Your task to perform on an android device: Go to Maps Image 0: 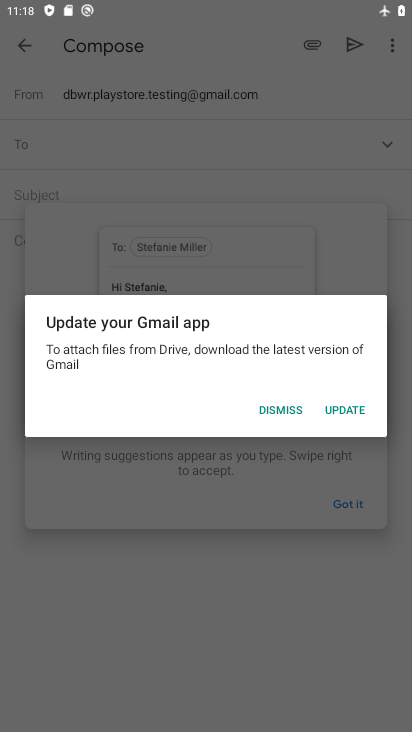
Step 0: press home button
Your task to perform on an android device: Go to Maps Image 1: 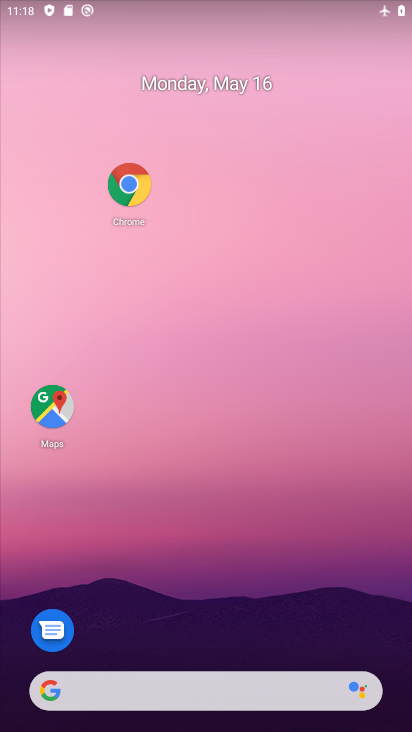
Step 1: click (48, 406)
Your task to perform on an android device: Go to Maps Image 2: 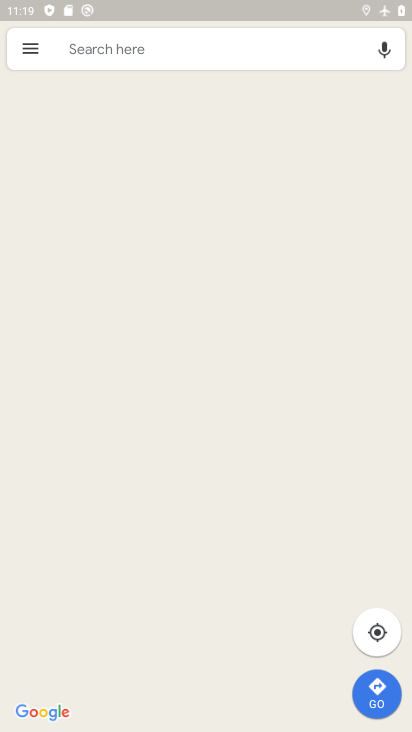
Step 2: click (383, 635)
Your task to perform on an android device: Go to Maps Image 3: 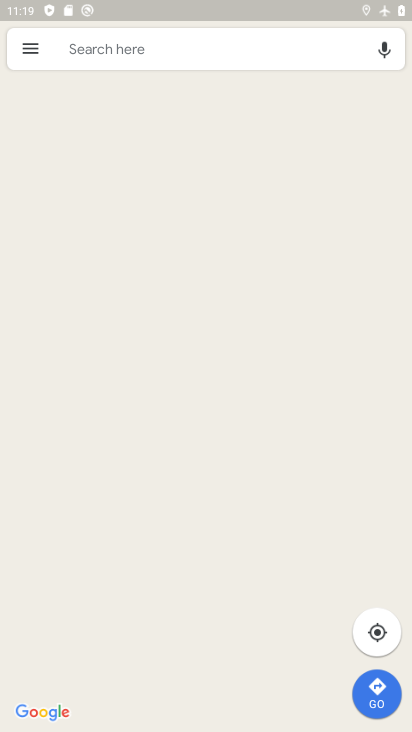
Step 3: task complete